Your task to perform on an android device: set default search engine in the chrome app Image 0: 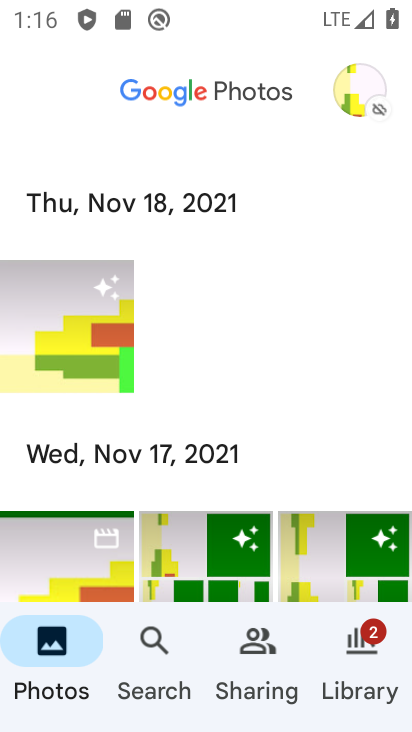
Step 0: press home button
Your task to perform on an android device: set default search engine in the chrome app Image 1: 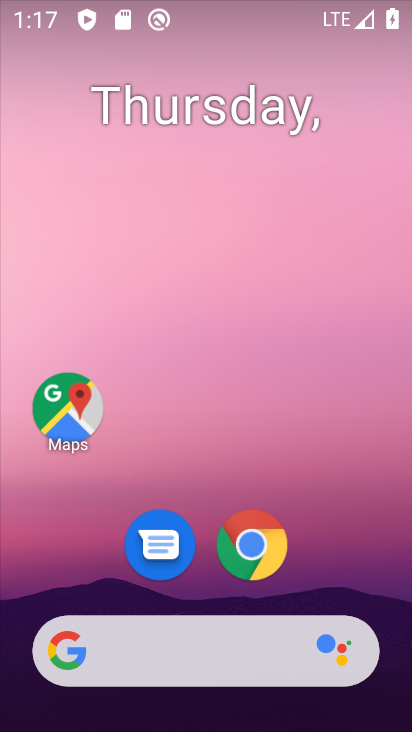
Step 1: click (270, 546)
Your task to perform on an android device: set default search engine in the chrome app Image 2: 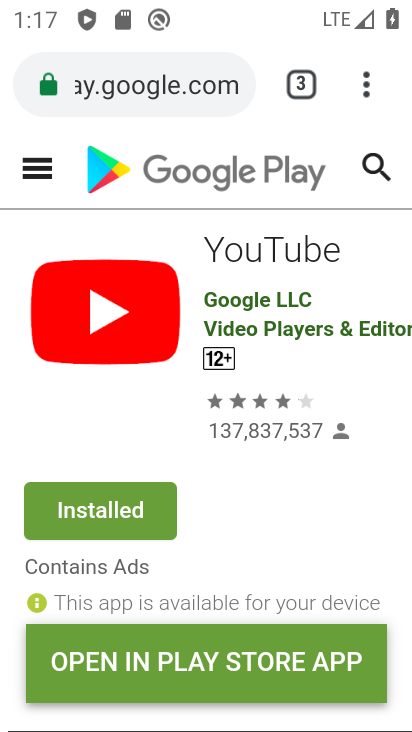
Step 2: click (354, 86)
Your task to perform on an android device: set default search engine in the chrome app Image 3: 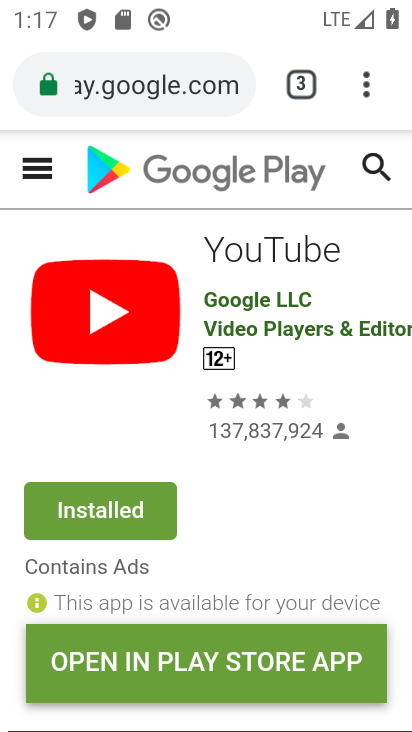
Step 3: click (365, 79)
Your task to perform on an android device: set default search engine in the chrome app Image 4: 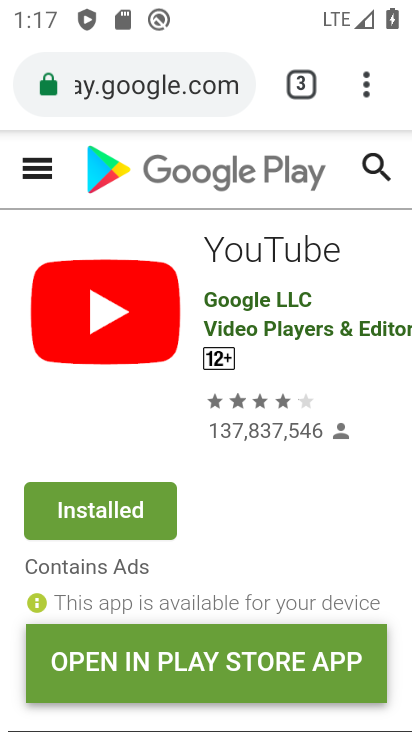
Step 4: click (365, 89)
Your task to perform on an android device: set default search engine in the chrome app Image 5: 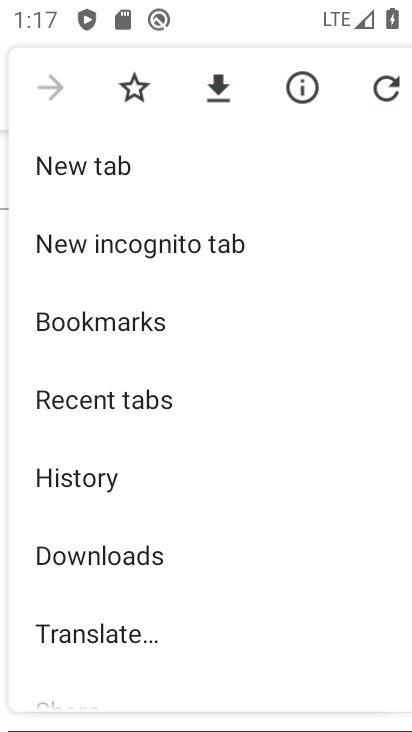
Step 5: drag from (255, 642) to (172, 102)
Your task to perform on an android device: set default search engine in the chrome app Image 6: 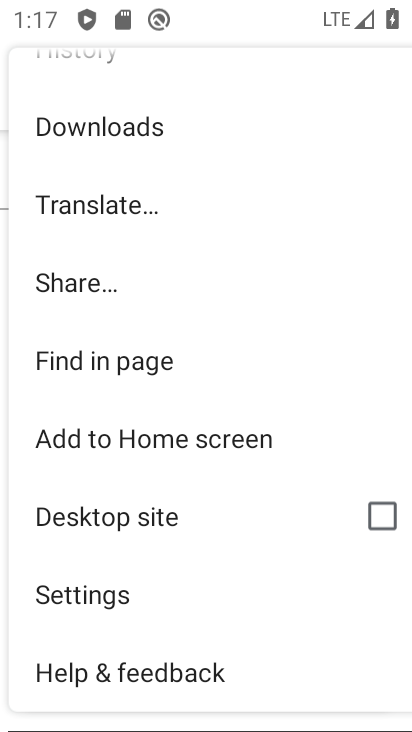
Step 6: click (107, 614)
Your task to perform on an android device: set default search engine in the chrome app Image 7: 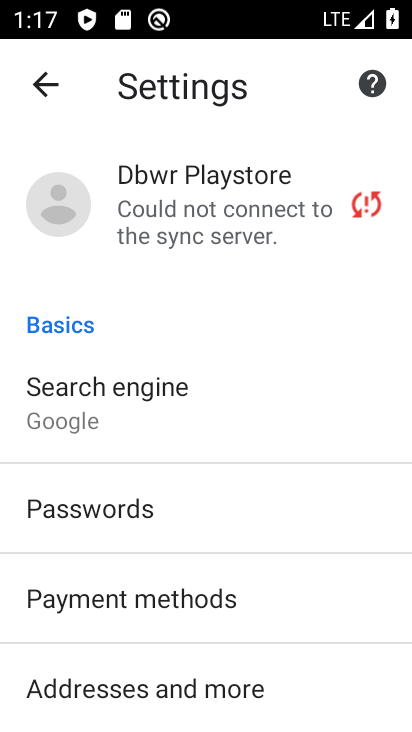
Step 7: click (120, 389)
Your task to perform on an android device: set default search engine in the chrome app Image 8: 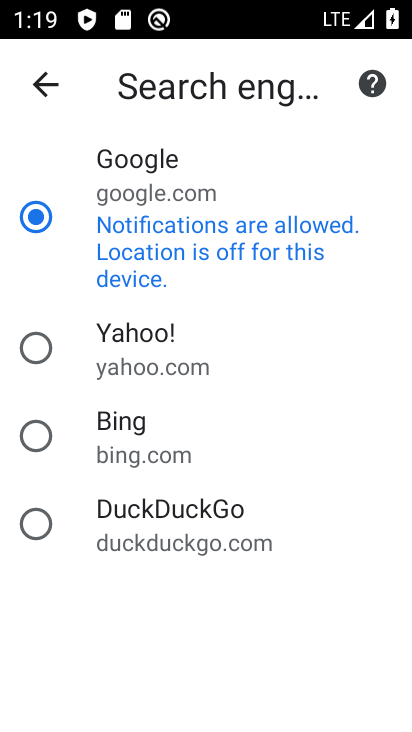
Step 8: task complete